Your task to perform on an android device: Go to network settings Image 0: 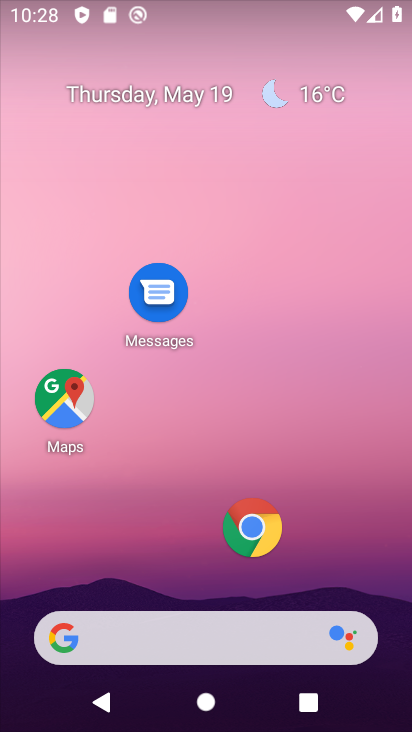
Step 0: drag from (166, 601) to (179, 266)
Your task to perform on an android device: Go to network settings Image 1: 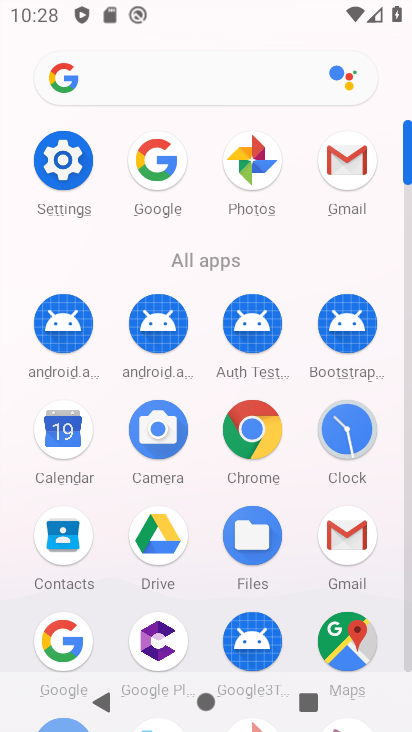
Step 1: click (84, 157)
Your task to perform on an android device: Go to network settings Image 2: 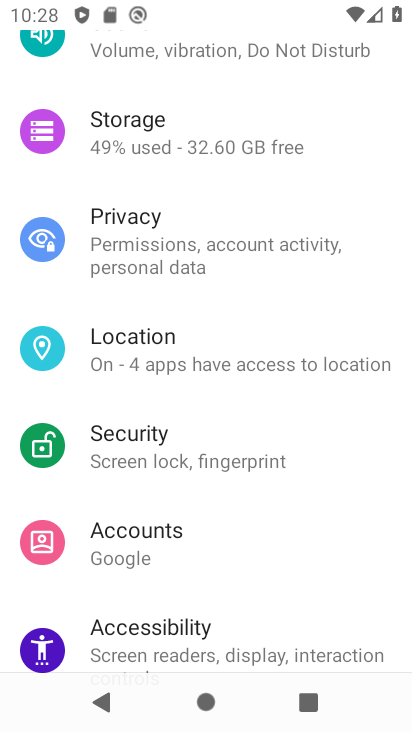
Step 2: drag from (239, 136) to (264, 628)
Your task to perform on an android device: Go to network settings Image 3: 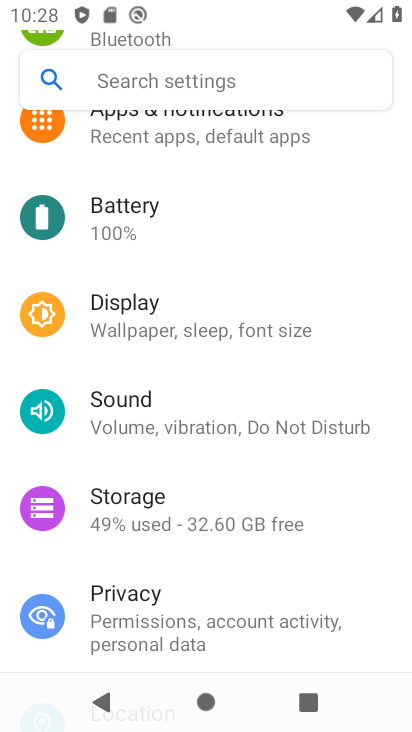
Step 3: drag from (246, 170) to (260, 597)
Your task to perform on an android device: Go to network settings Image 4: 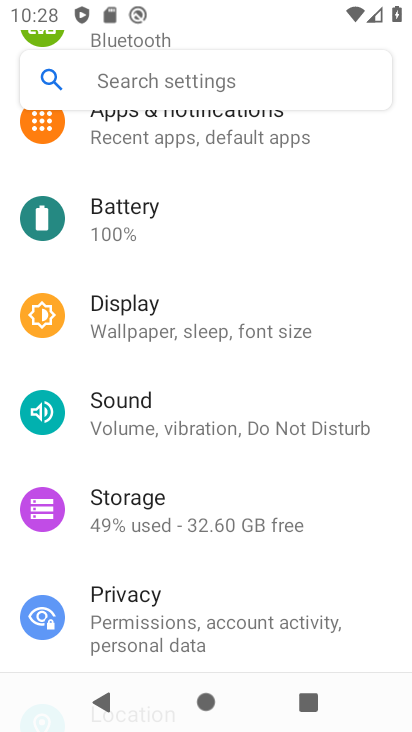
Step 4: drag from (261, 230) to (299, 716)
Your task to perform on an android device: Go to network settings Image 5: 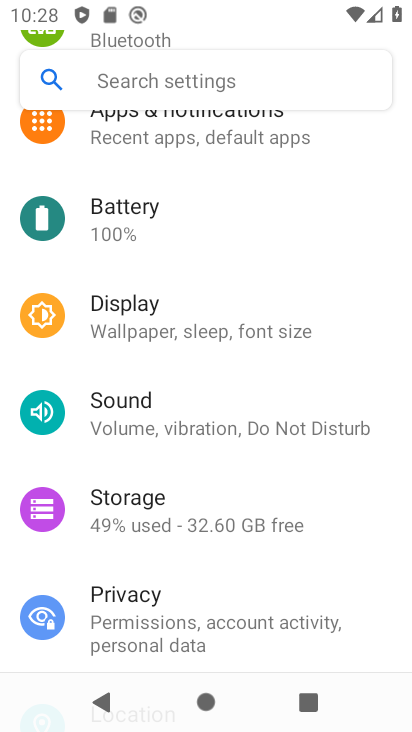
Step 5: click (237, 534)
Your task to perform on an android device: Go to network settings Image 6: 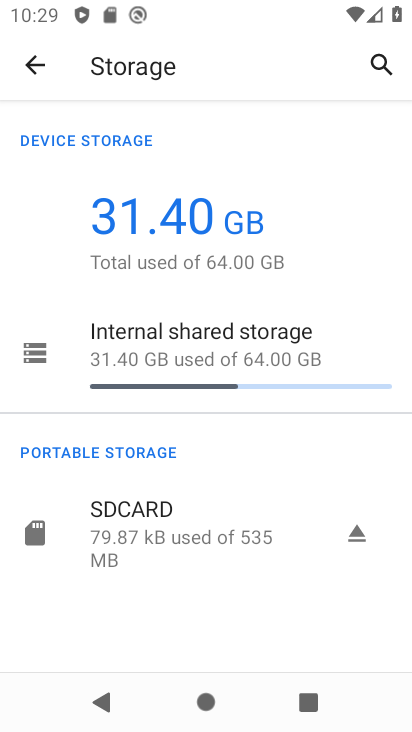
Step 6: drag from (211, 522) to (220, 590)
Your task to perform on an android device: Go to network settings Image 7: 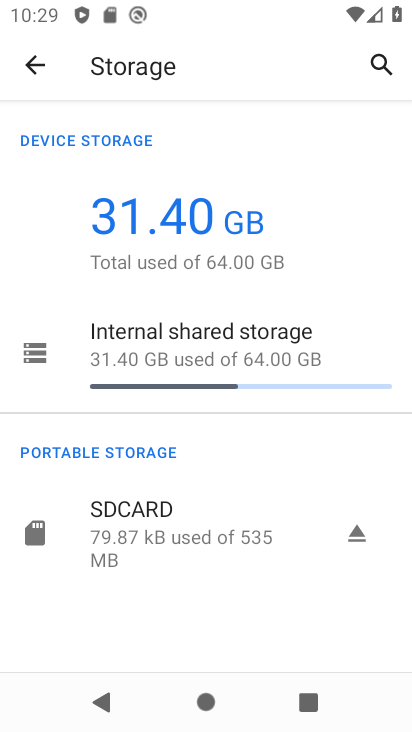
Step 7: click (29, 75)
Your task to perform on an android device: Go to network settings Image 8: 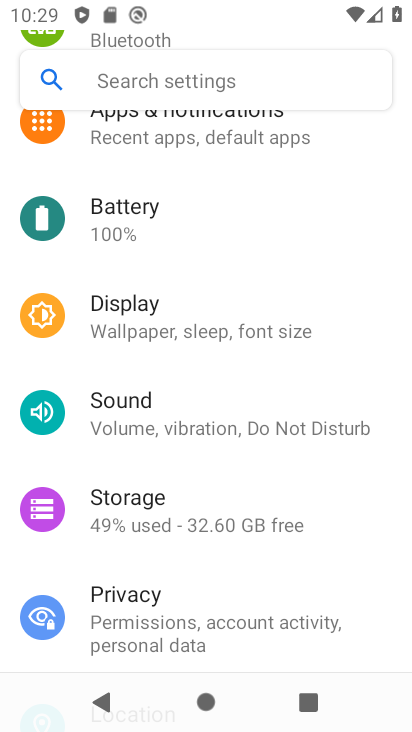
Step 8: drag from (227, 134) to (247, 593)
Your task to perform on an android device: Go to network settings Image 9: 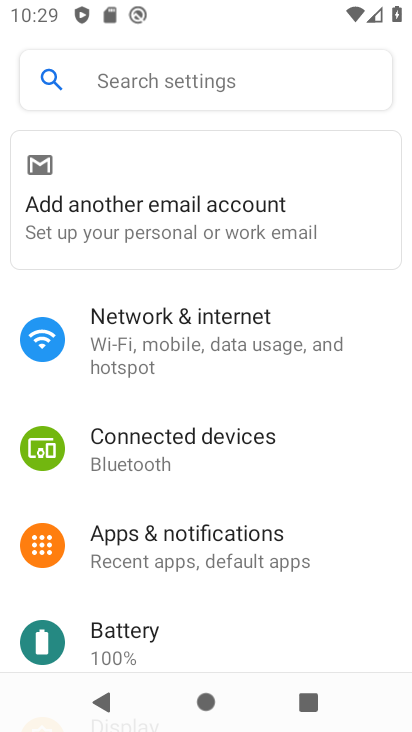
Step 9: click (202, 335)
Your task to perform on an android device: Go to network settings Image 10: 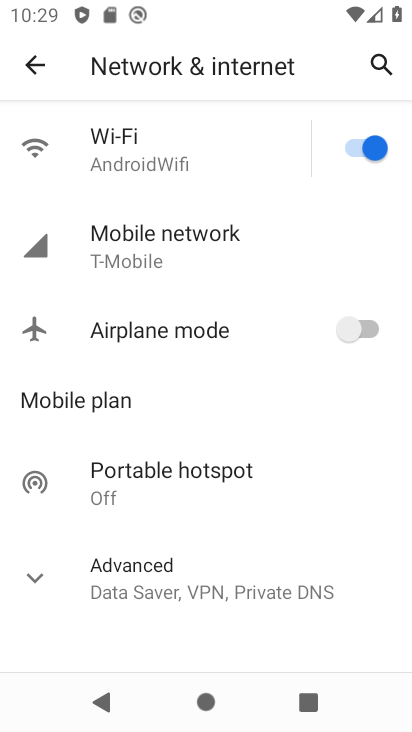
Step 10: click (181, 584)
Your task to perform on an android device: Go to network settings Image 11: 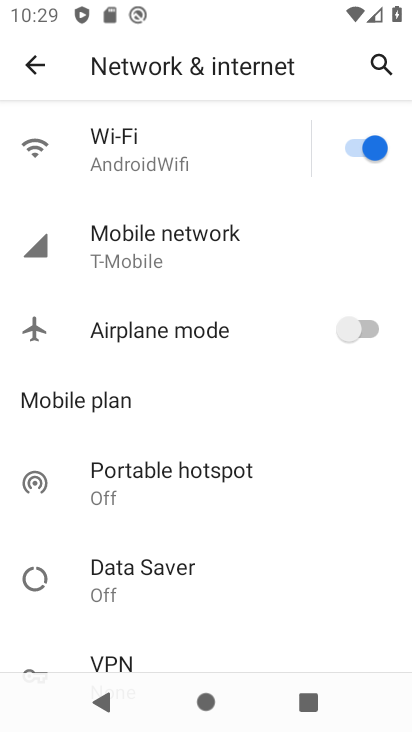
Step 11: task complete